Your task to perform on an android device: turn off translation in the chrome app Image 0: 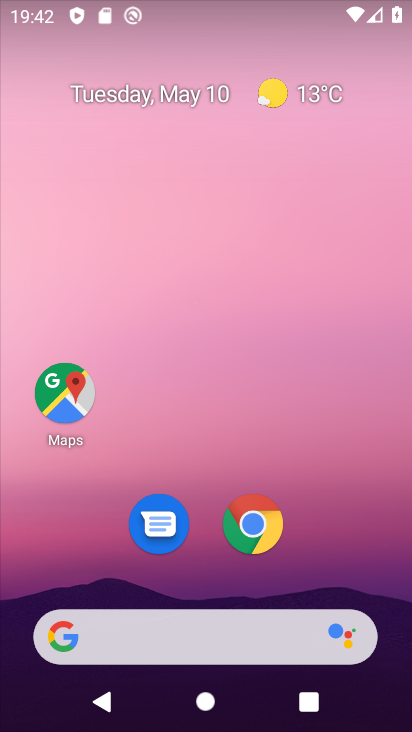
Step 0: click (259, 524)
Your task to perform on an android device: turn off translation in the chrome app Image 1: 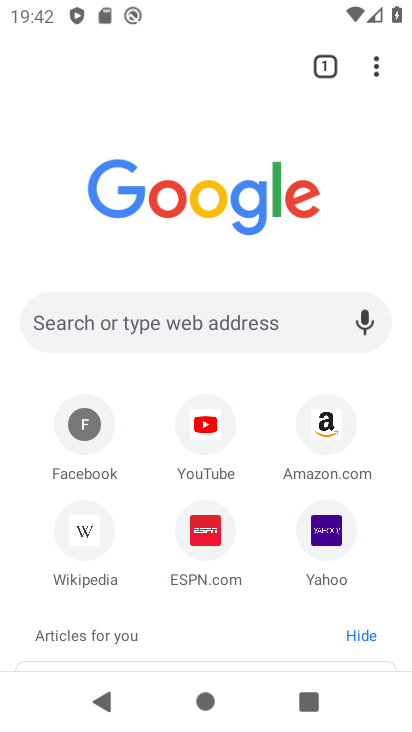
Step 1: click (372, 68)
Your task to perform on an android device: turn off translation in the chrome app Image 2: 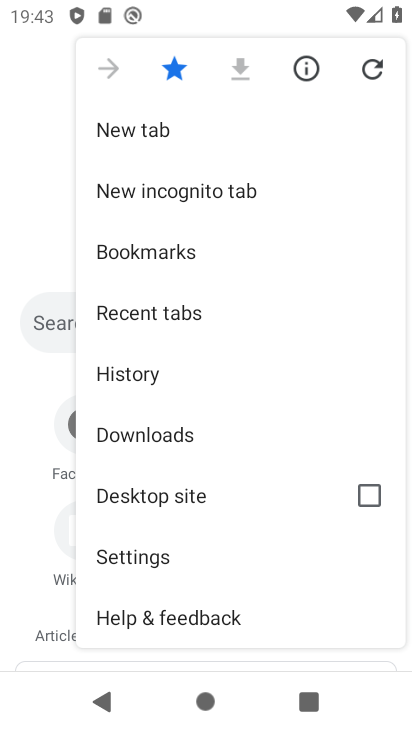
Step 2: click (198, 551)
Your task to perform on an android device: turn off translation in the chrome app Image 3: 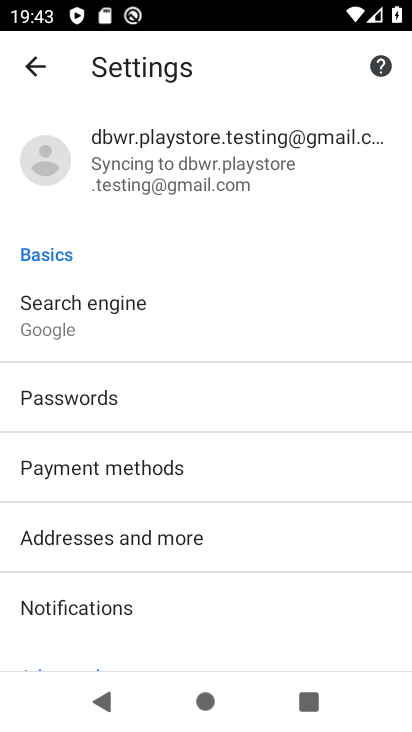
Step 3: drag from (198, 551) to (237, 146)
Your task to perform on an android device: turn off translation in the chrome app Image 4: 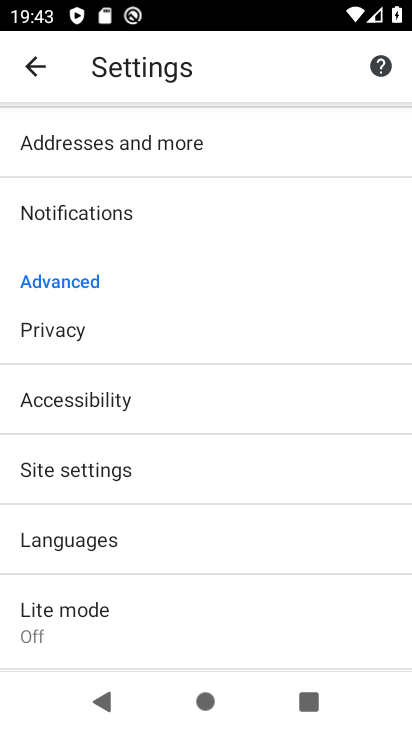
Step 4: click (249, 527)
Your task to perform on an android device: turn off translation in the chrome app Image 5: 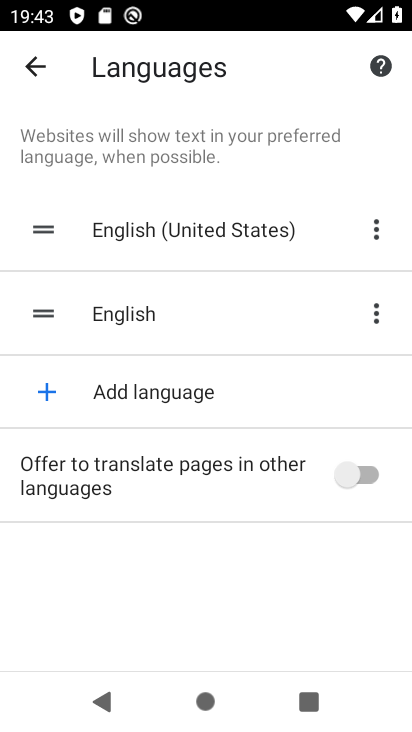
Step 5: task complete